Your task to perform on an android device: allow cookies in the chrome app Image 0: 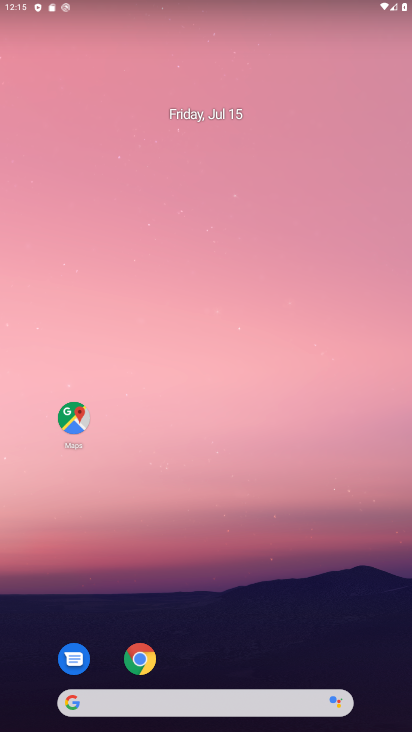
Step 0: drag from (245, 667) to (305, 181)
Your task to perform on an android device: allow cookies in the chrome app Image 1: 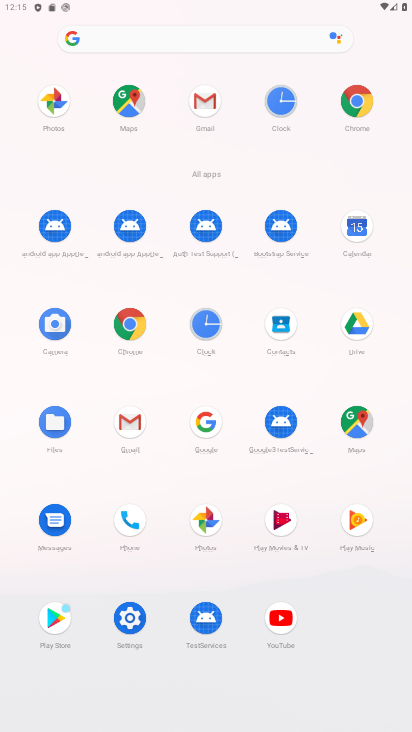
Step 1: click (354, 104)
Your task to perform on an android device: allow cookies in the chrome app Image 2: 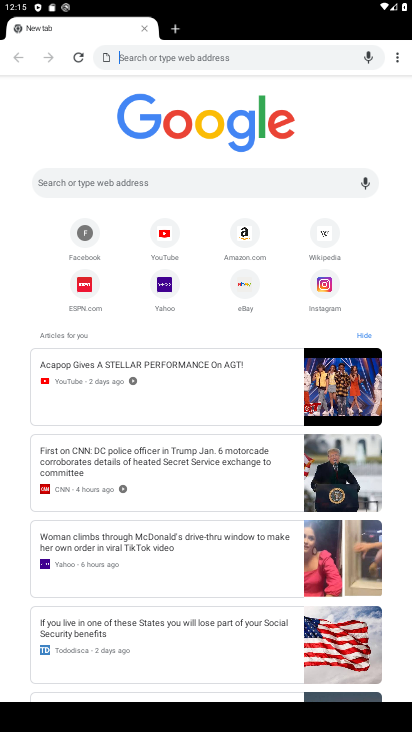
Step 2: click (394, 57)
Your task to perform on an android device: allow cookies in the chrome app Image 3: 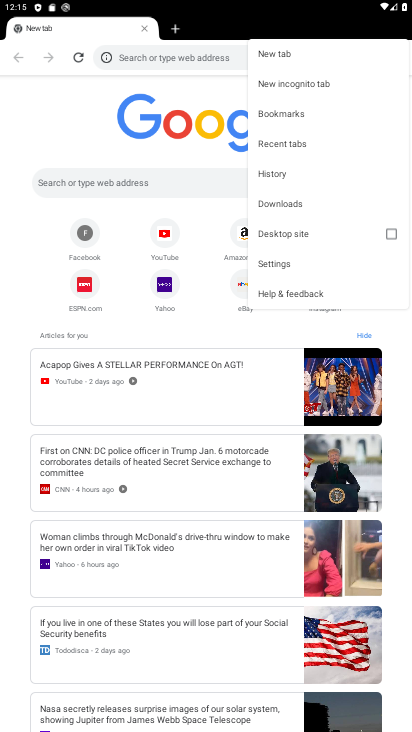
Step 3: click (300, 265)
Your task to perform on an android device: allow cookies in the chrome app Image 4: 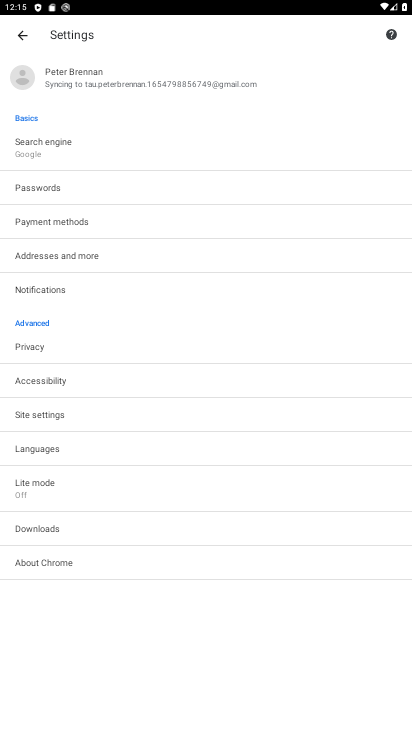
Step 4: click (46, 416)
Your task to perform on an android device: allow cookies in the chrome app Image 5: 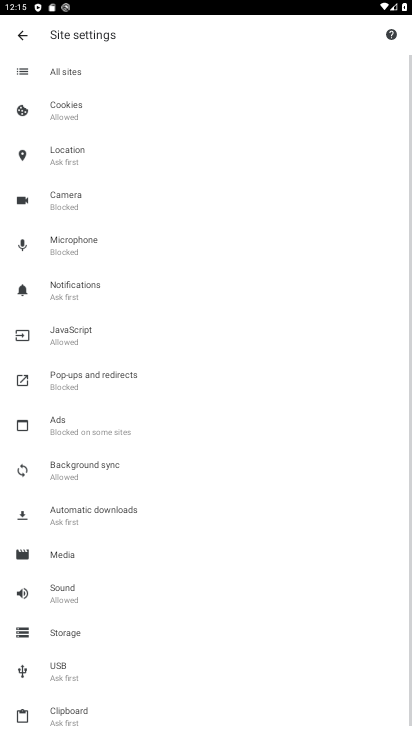
Step 5: click (81, 111)
Your task to perform on an android device: allow cookies in the chrome app Image 6: 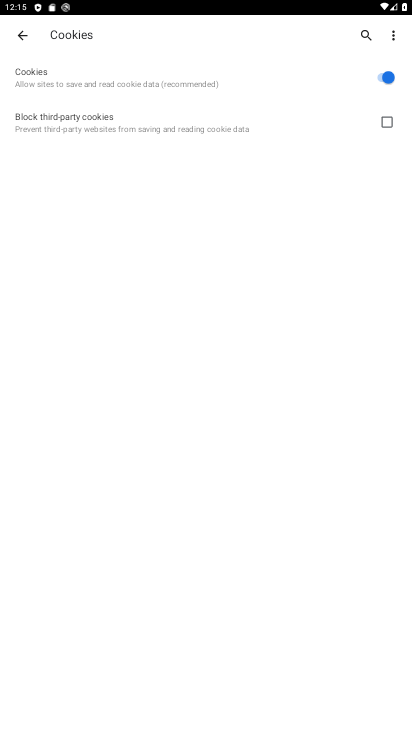
Step 6: task complete